Your task to perform on an android device: Show me recent news Image 0: 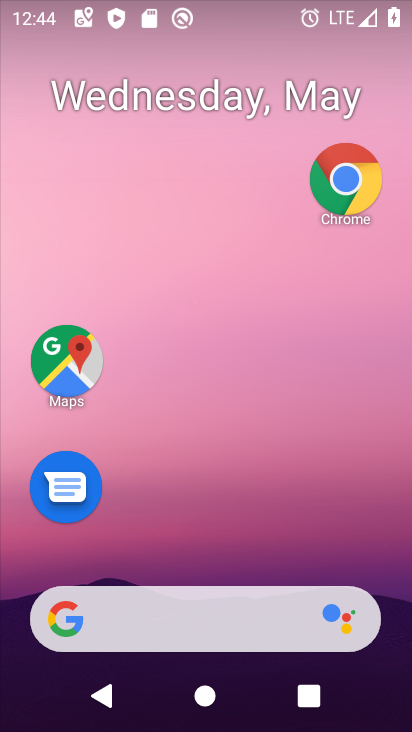
Step 0: click (205, 628)
Your task to perform on an android device: Show me recent news Image 1: 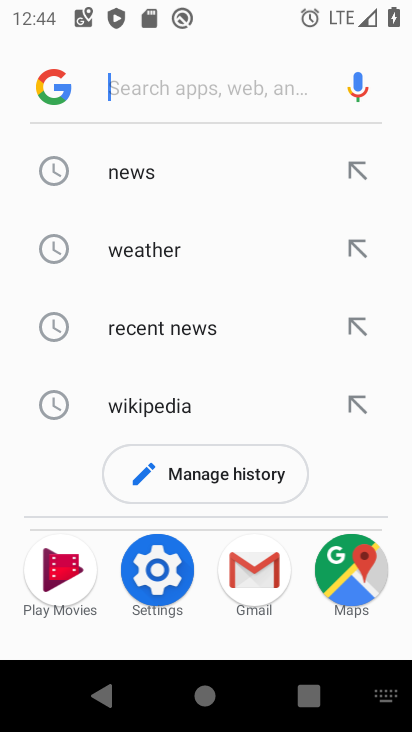
Step 1: click (135, 327)
Your task to perform on an android device: Show me recent news Image 2: 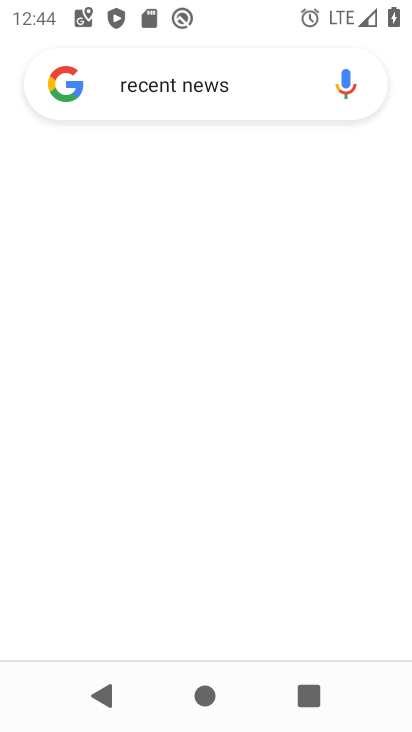
Step 2: task complete